Your task to perform on an android device: open a bookmark in the chrome app Image 0: 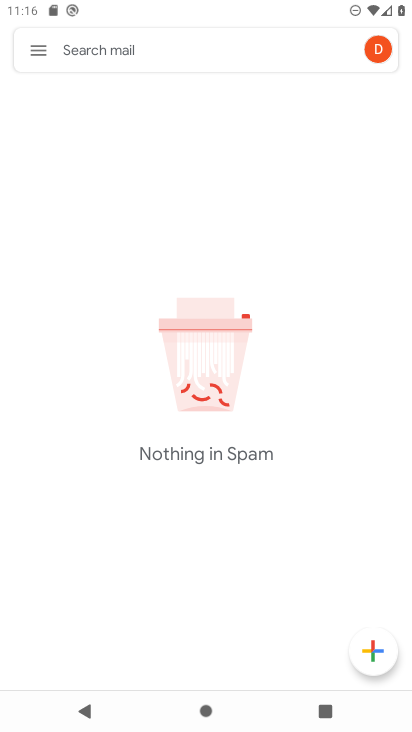
Step 0: press home button
Your task to perform on an android device: open a bookmark in the chrome app Image 1: 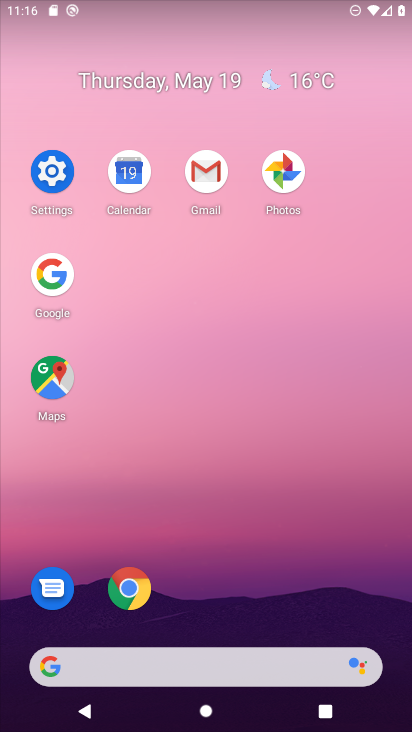
Step 1: click (139, 589)
Your task to perform on an android device: open a bookmark in the chrome app Image 2: 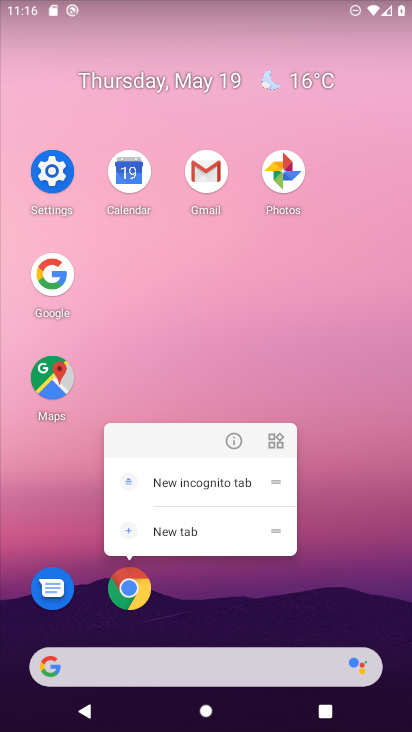
Step 2: click (139, 589)
Your task to perform on an android device: open a bookmark in the chrome app Image 3: 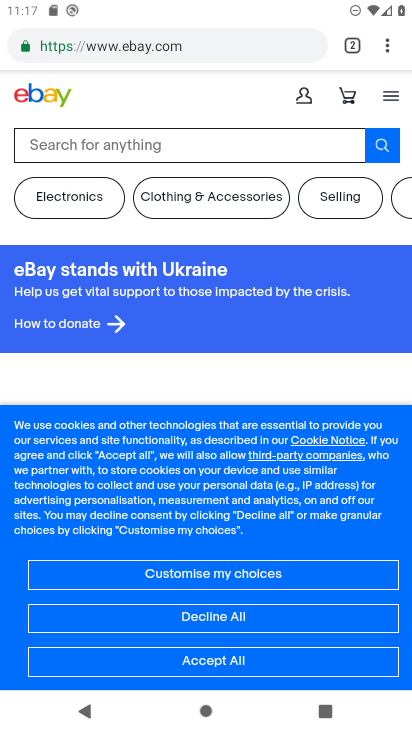
Step 3: click (386, 48)
Your task to perform on an android device: open a bookmark in the chrome app Image 4: 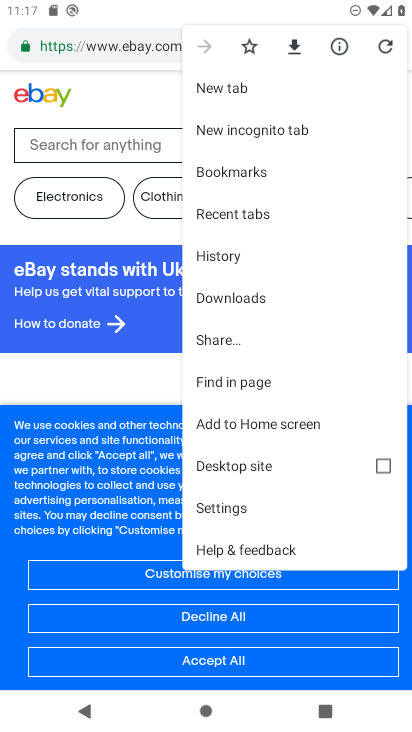
Step 4: click (259, 174)
Your task to perform on an android device: open a bookmark in the chrome app Image 5: 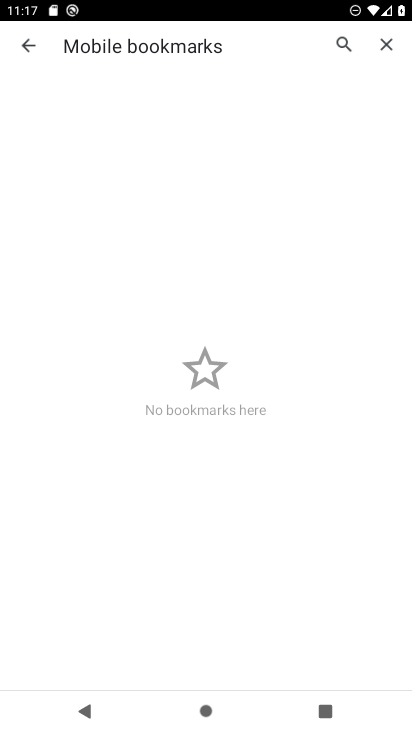
Step 5: task complete